Your task to perform on an android device: Open the clock app Image 0: 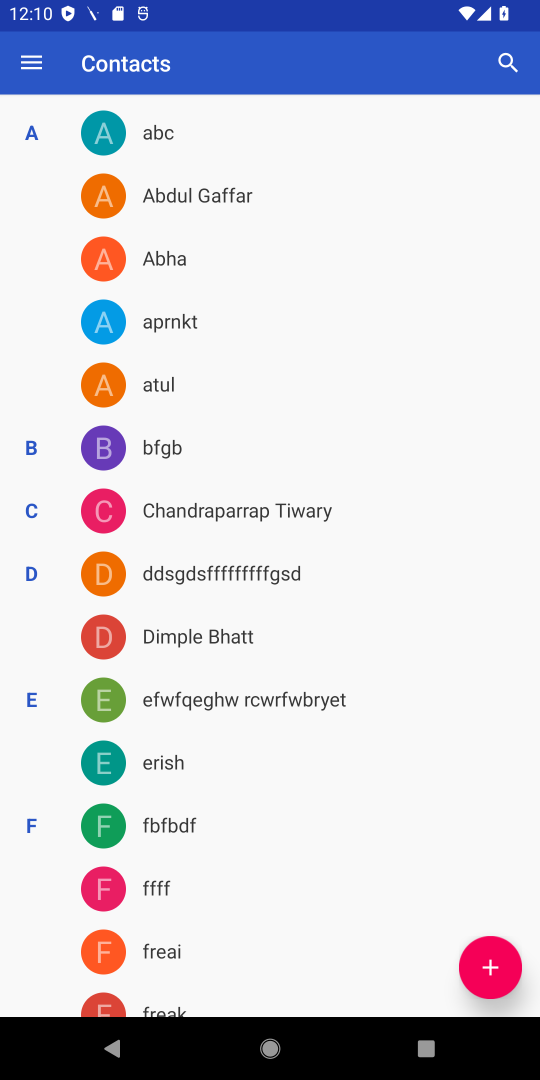
Step 0: press home button
Your task to perform on an android device: Open the clock app Image 1: 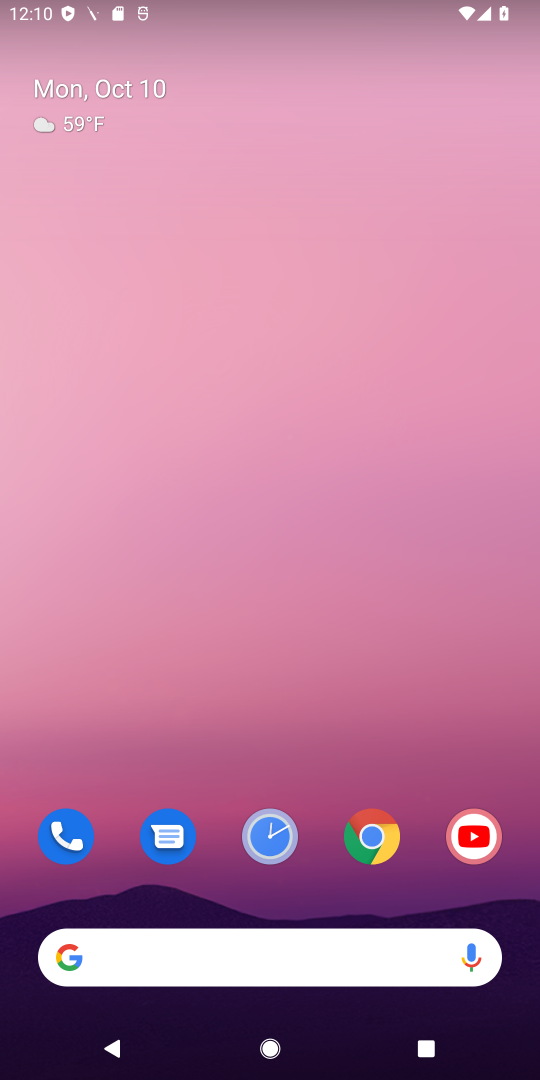
Step 1: click (273, 835)
Your task to perform on an android device: Open the clock app Image 2: 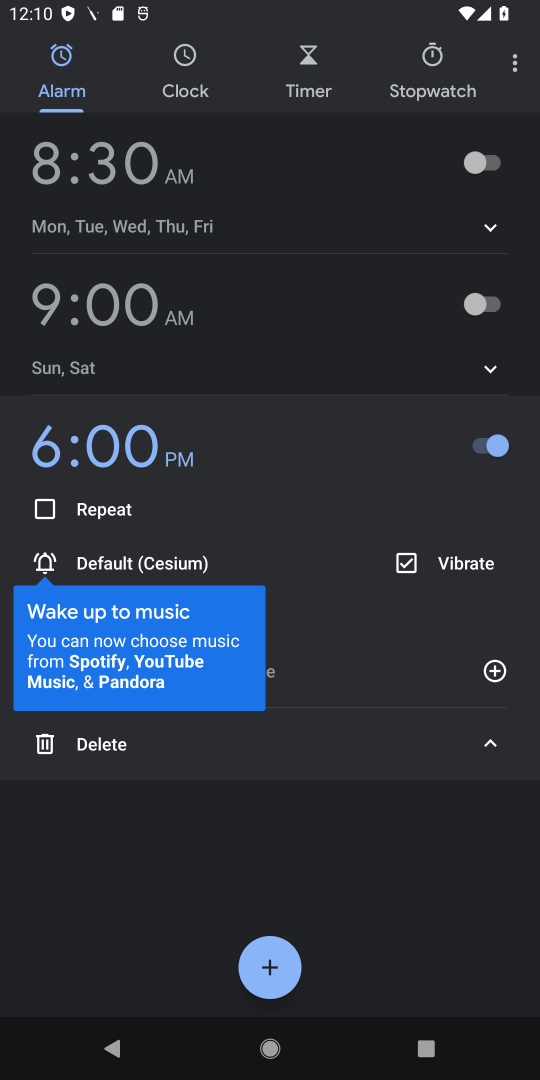
Step 2: task complete